Your task to perform on an android device: See recent photos Image 0: 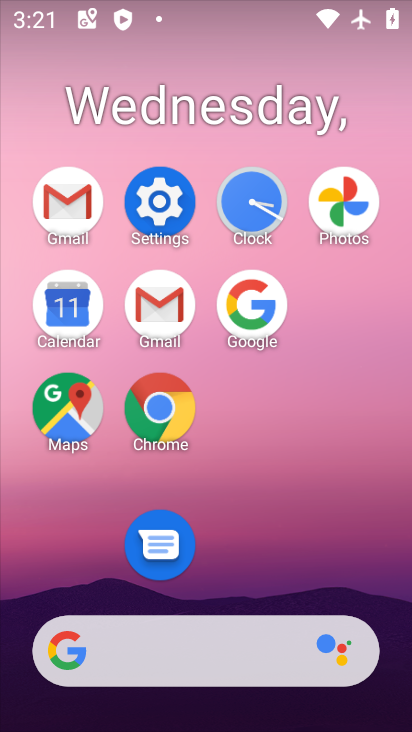
Step 0: click (338, 198)
Your task to perform on an android device: See recent photos Image 1: 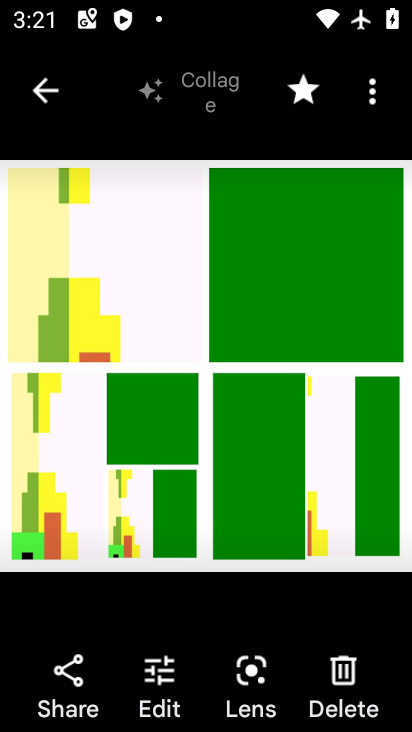
Step 1: task complete